Your task to perform on an android device: Open calendar and show me the first week of next month Image 0: 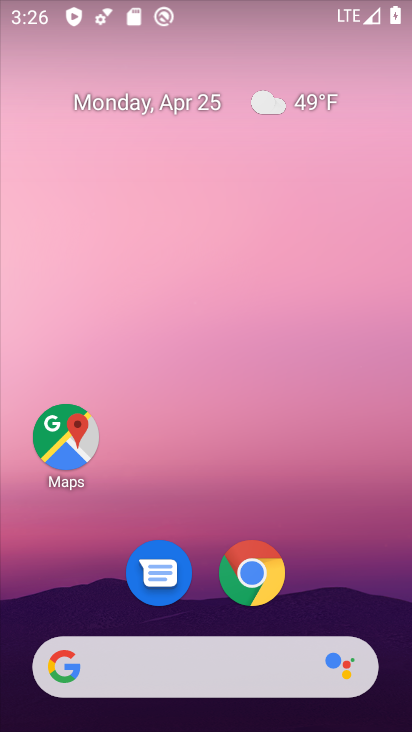
Step 0: drag from (344, 570) to (259, 142)
Your task to perform on an android device: Open calendar and show me the first week of next month Image 1: 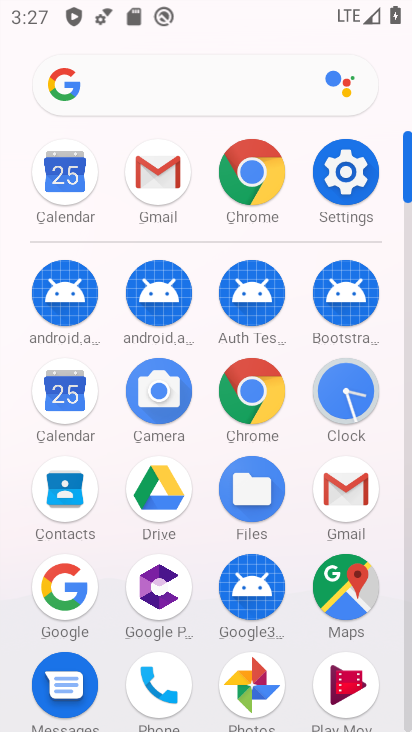
Step 1: click (56, 392)
Your task to perform on an android device: Open calendar and show me the first week of next month Image 2: 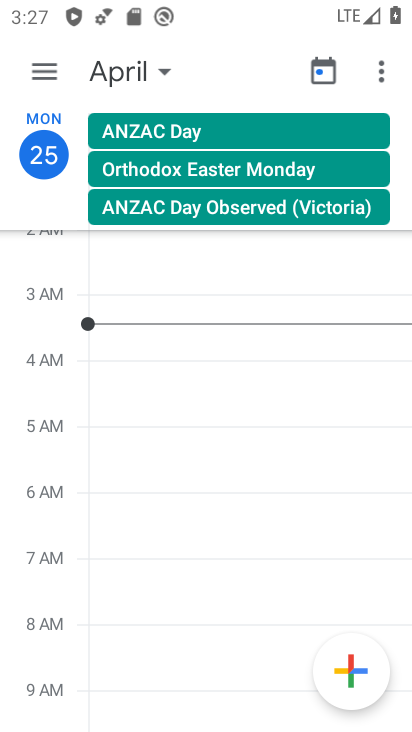
Step 2: click (130, 71)
Your task to perform on an android device: Open calendar and show me the first week of next month Image 3: 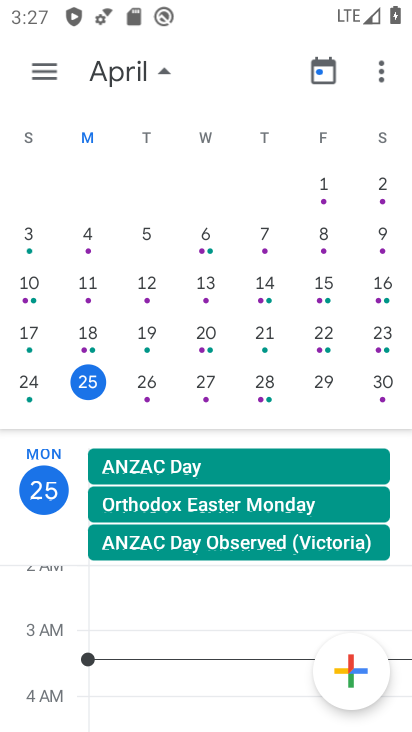
Step 3: drag from (330, 363) to (5, 208)
Your task to perform on an android device: Open calendar and show me the first week of next month Image 4: 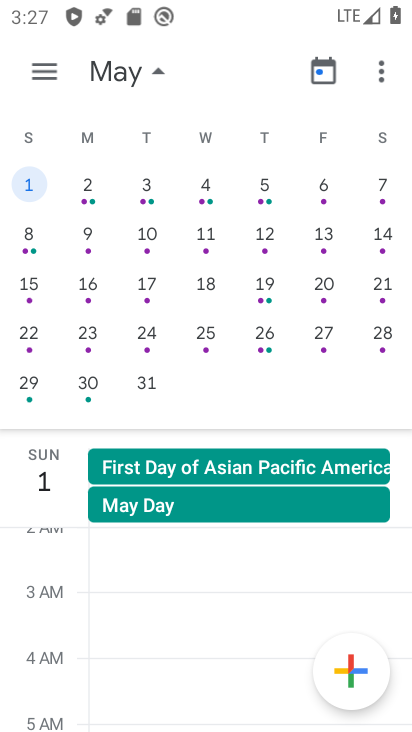
Step 4: click (90, 179)
Your task to perform on an android device: Open calendar and show me the first week of next month Image 5: 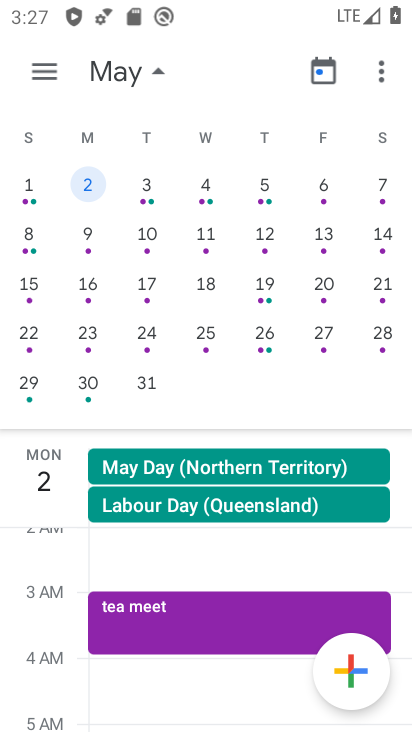
Step 5: click (47, 73)
Your task to perform on an android device: Open calendar and show me the first week of next month Image 6: 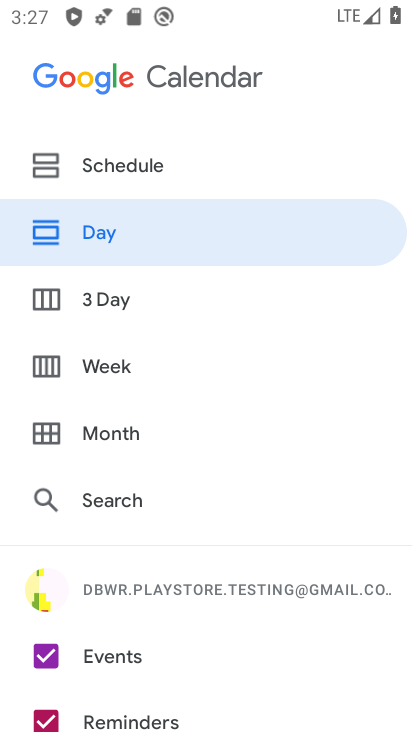
Step 6: click (105, 371)
Your task to perform on an android device: Open calendar and show me the first week of next month Image 7: 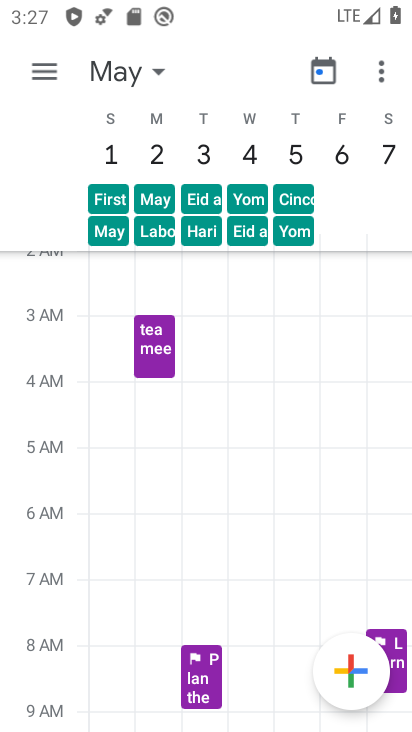
Step 7: task complete